Your task to perform on an android device: Open Yahoo.com Image 0: 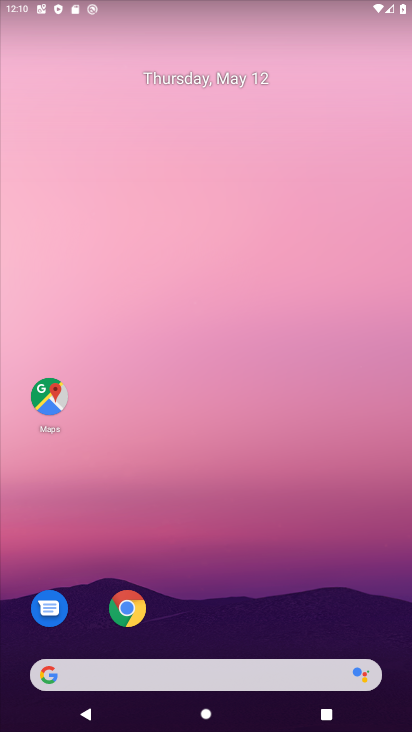
Step 0: click (120, 615)
Your task to perform on an android device: Open Yahoo.com Image 1: 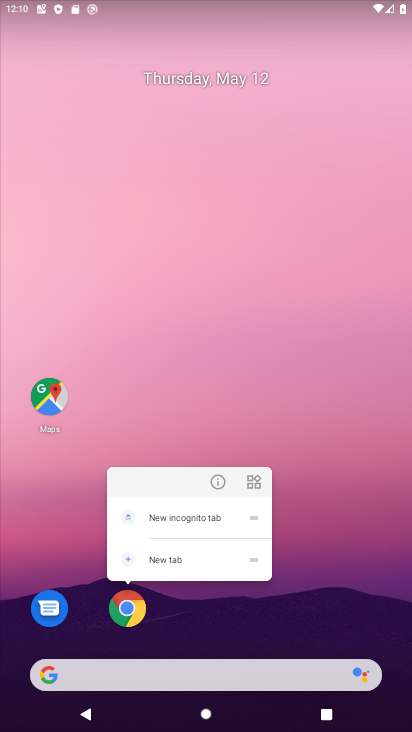
Step 1: click (258, 593)
Your task to perform on an android device: Open Yahoo.com Image 2: 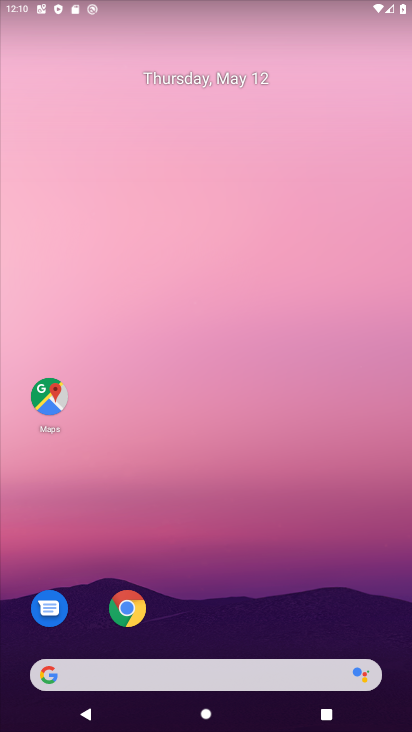
Step 2: click (138, 607)
Your task to perform on an android device: Open Yahoo.com Image 3: 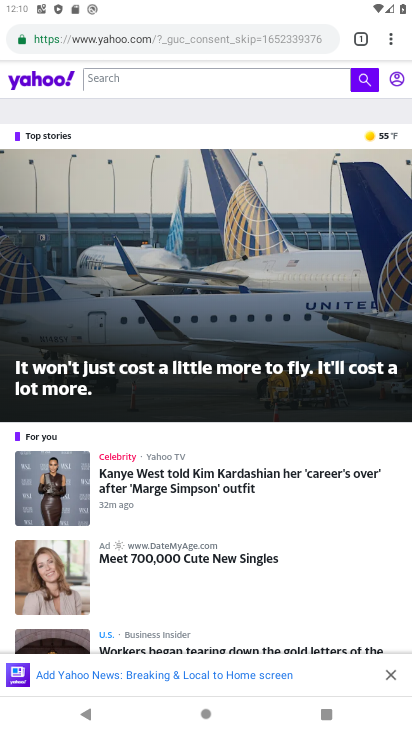
Step 3: task complete